Your task to perform on an android device: Go to Google Image 0: 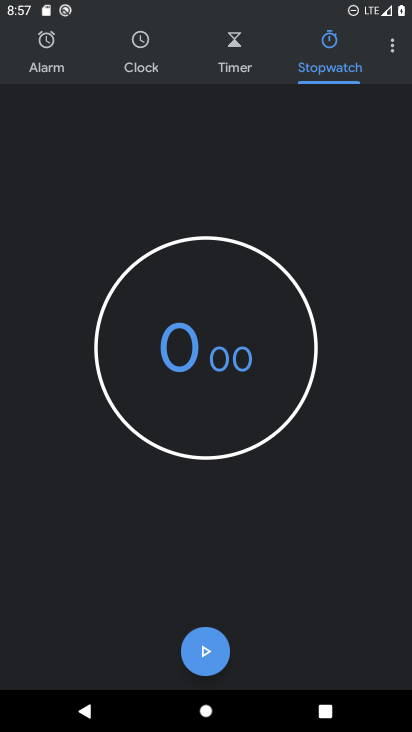
Step 0: press home button
Your task to perform on an android device: Go to Google Image 1: 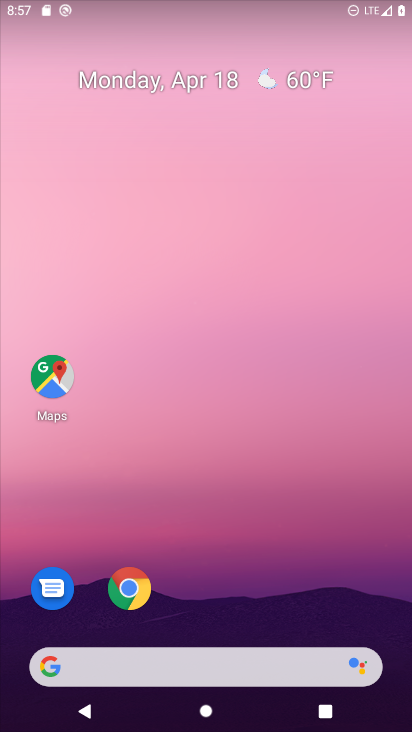
Step 1: click (129, 588)
Your task to perform on an android device: Go to Google Image 2: 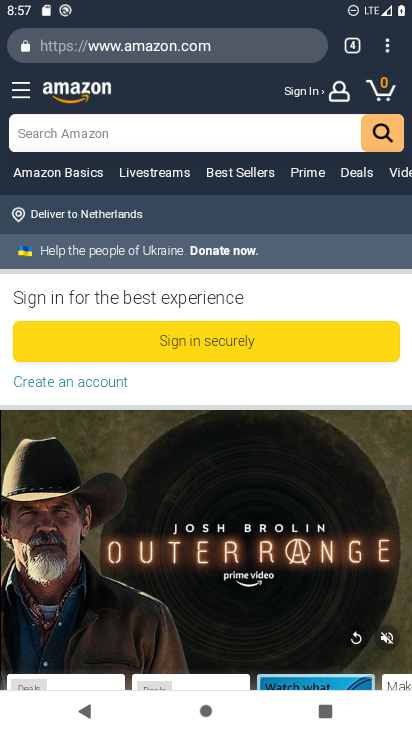
Step 2: task complete